Your task to perform on an android device: Open maps Image 0: 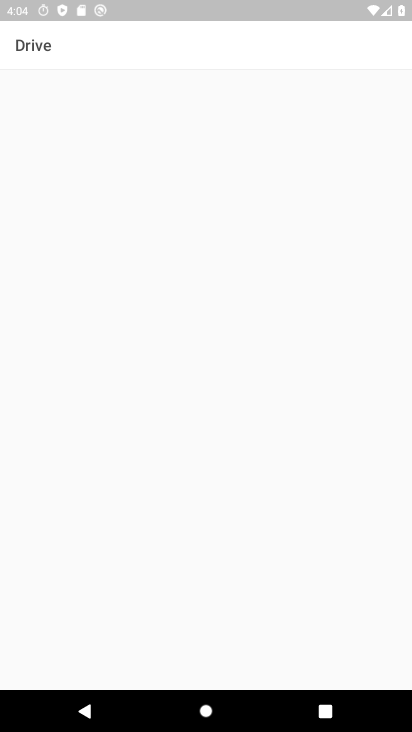
Step 0: press home button
Your task to perform on an android device: Open maps Image 1: 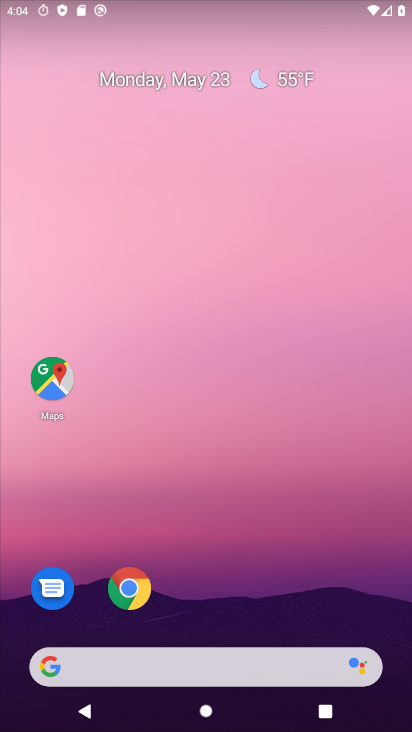
Step 1: drag from (232, 594) to (243, 469)
Your task to perform on an android device: Open maps Image 2: 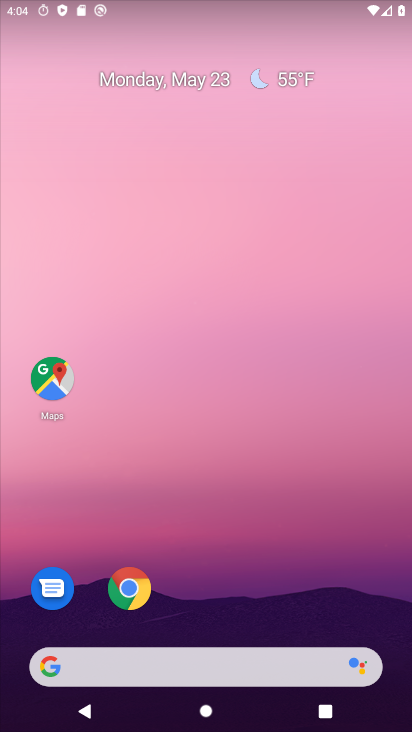
Step 2: click (214, 356)
Your task to perform on an android device: Open maps Image 3: 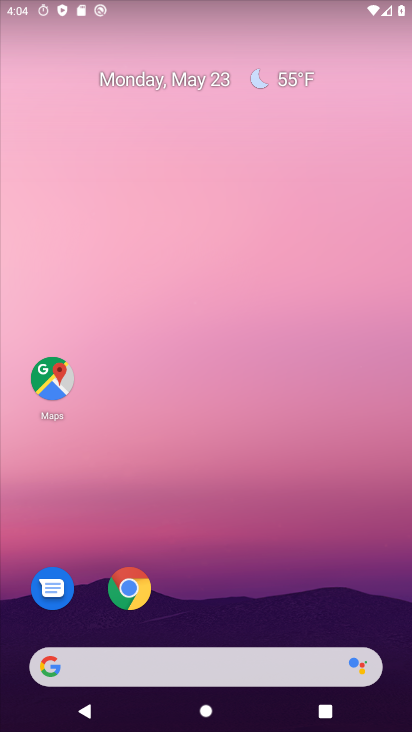
Step 3: click (46, 383)
Your task to perform on an android device: Open maps Image 4: 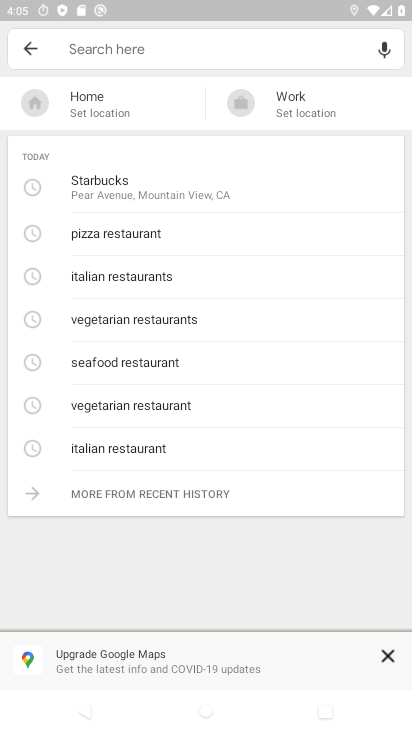
Step 4: task complete